Your task to perform on an android device: Go to location settings Image 0: 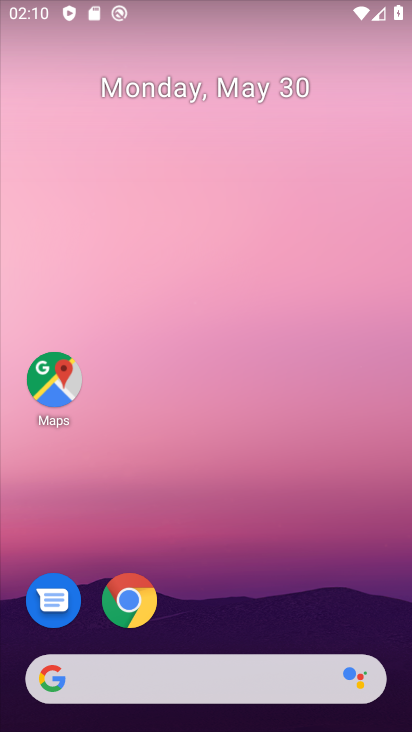
Step 0: drag from (218, 598) to (285, 60)
Your task to perform on an android device: Go to location settings Image 1: 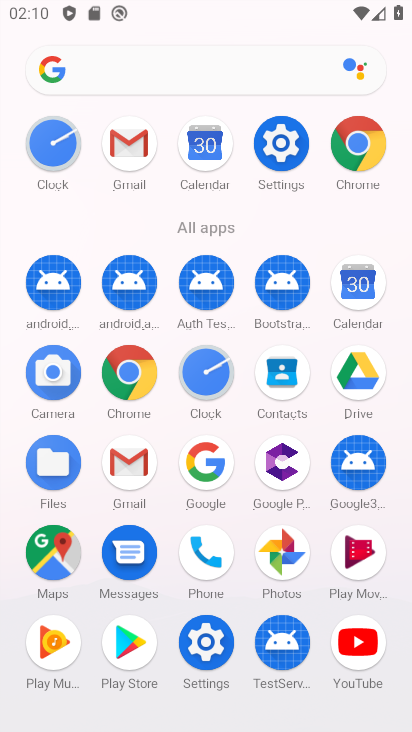
Step 1: click (286, 135)
Your task to perform on an android device: Go to location settings Image 2: 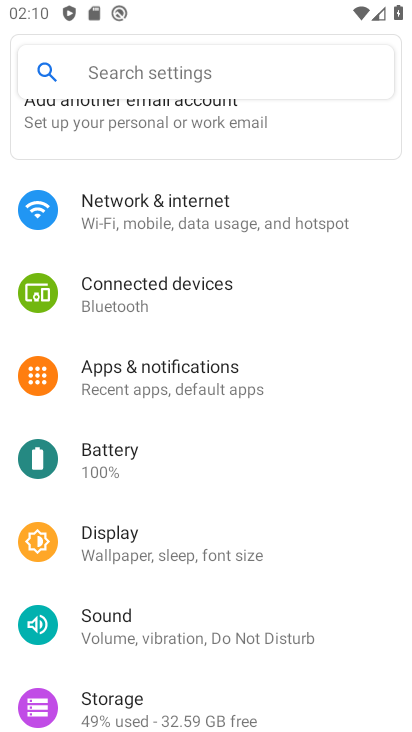
Step 2: drag from (267, 570) to (286, 282)
Your task to perform on an android device: Go to location settings Image 3: 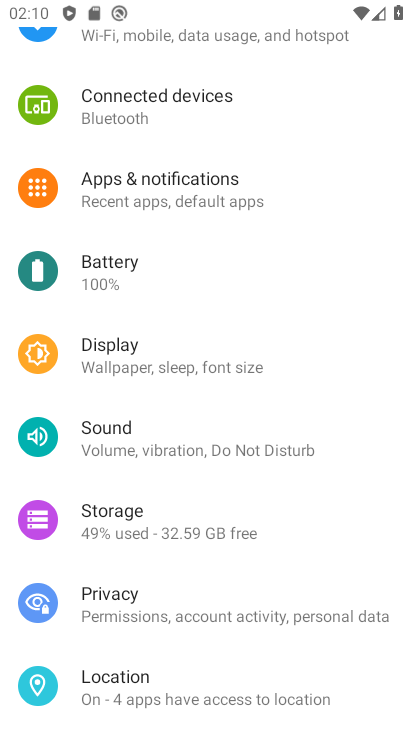
Step 3: click (177, 687)
Your task to perform on an android device: Go to location settings Image 4: 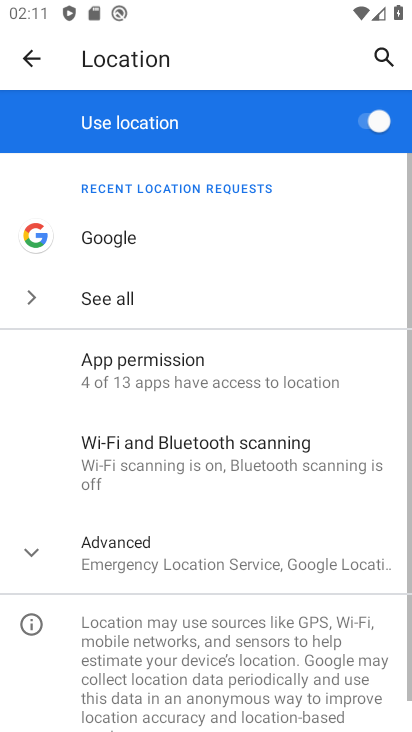
Step 4: task complete